Your task to perform on an android device: Show me popular videos on Youtube Image 0: 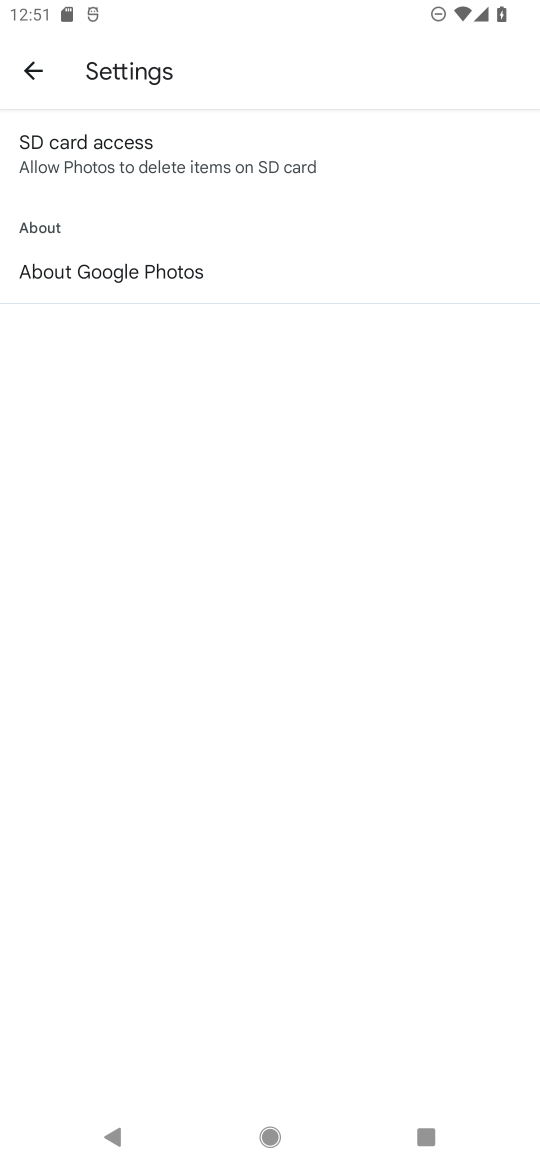
Step 0: press home button
Your task to perform on an android device: Show me popular videos on Youtube Image 1: 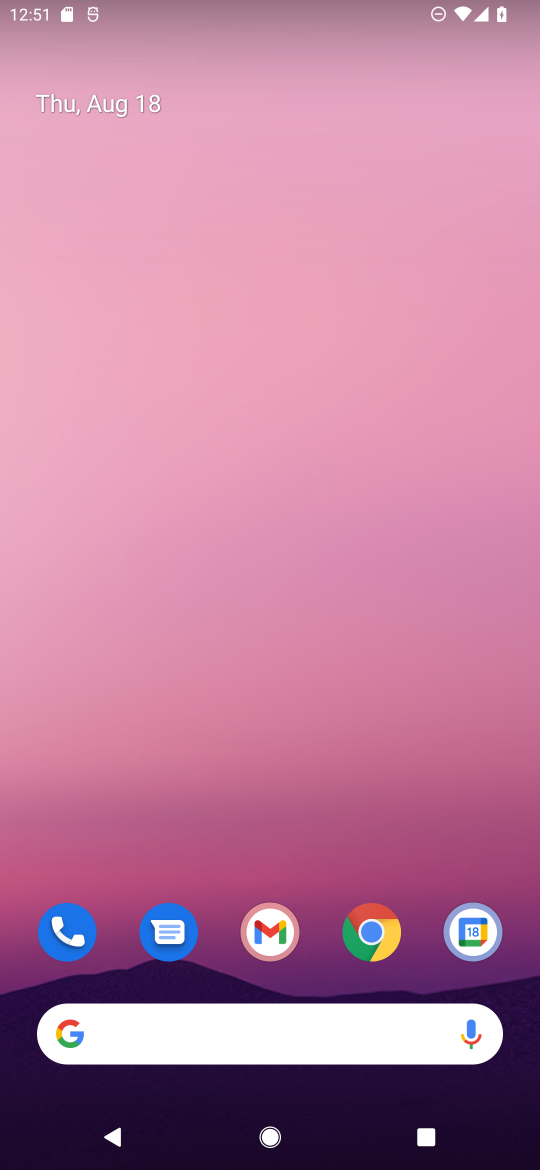
Step 1: drag from (319, 750) to (277, 71)
Your task to perform on an android device: Show me popular videos on Youtube Image 2: 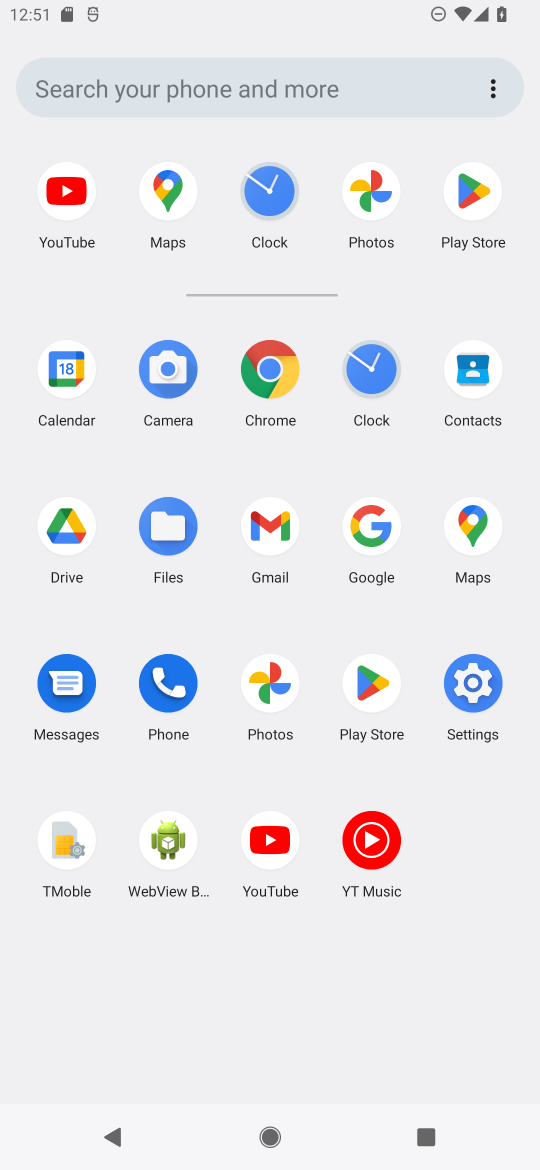
Step 2: click (72, 197)
Your task to perform on an android device: Show me popular videos on Youtube Image 3: 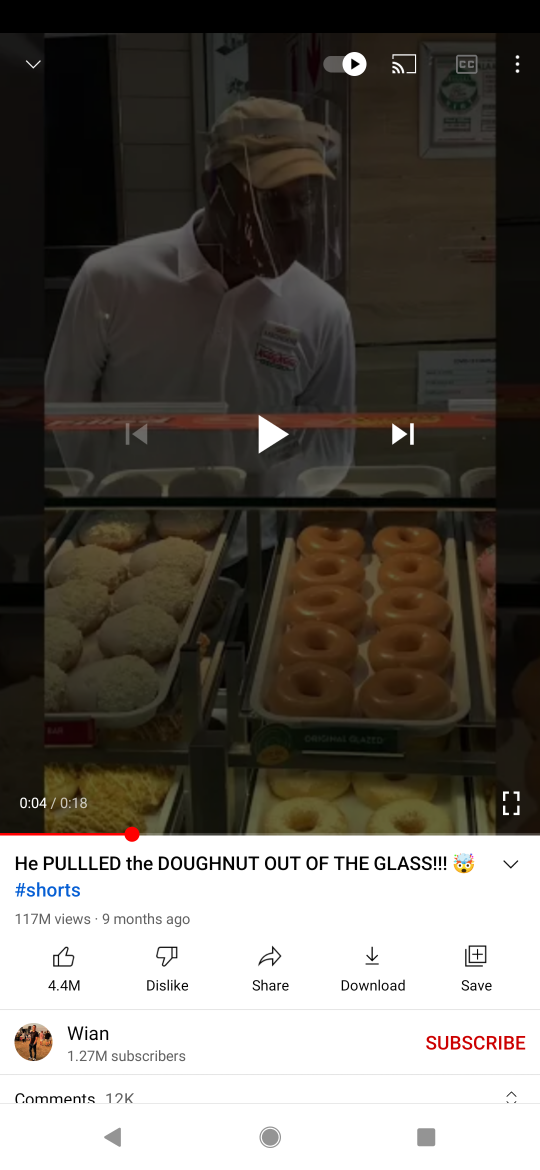
Step 3: click (39, 61)
Your task to perform on an android device: Show me popular videos on Youtube Image 4: 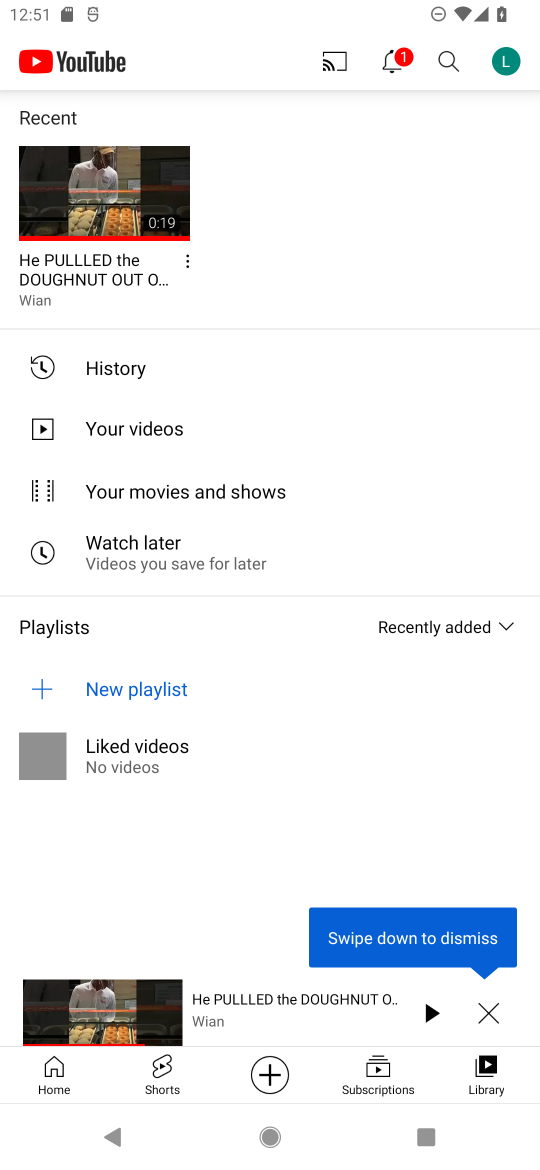
Step 4: click (489, 1016)
Your task to perform on an android device: Show me popular videos on Youtube Image 5: 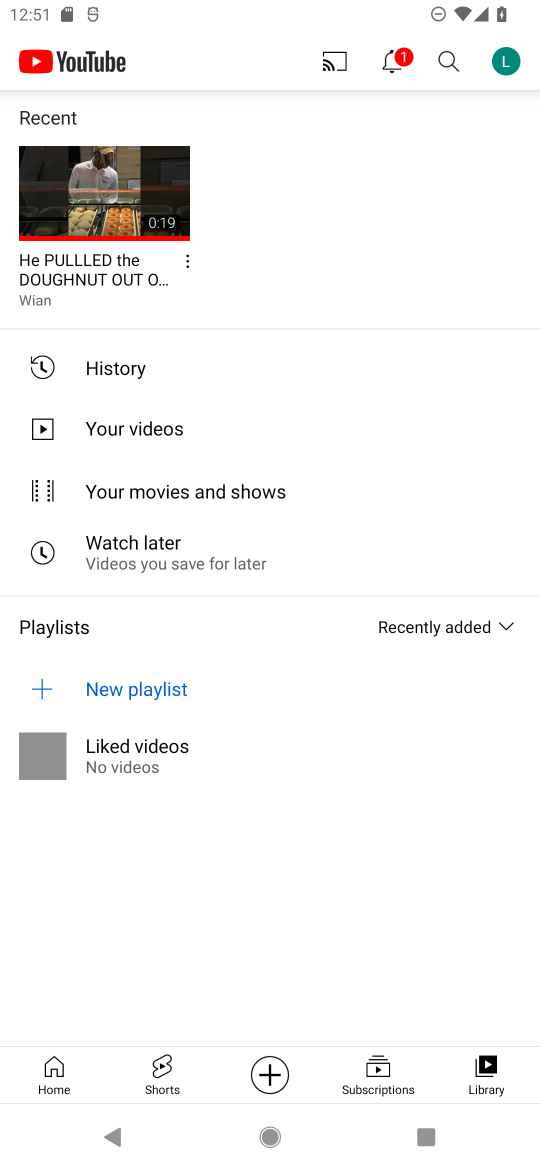
Step 5: click (159, 1077)
Your task to perform on an android device: Show me popular videos on Youtube Image 6: 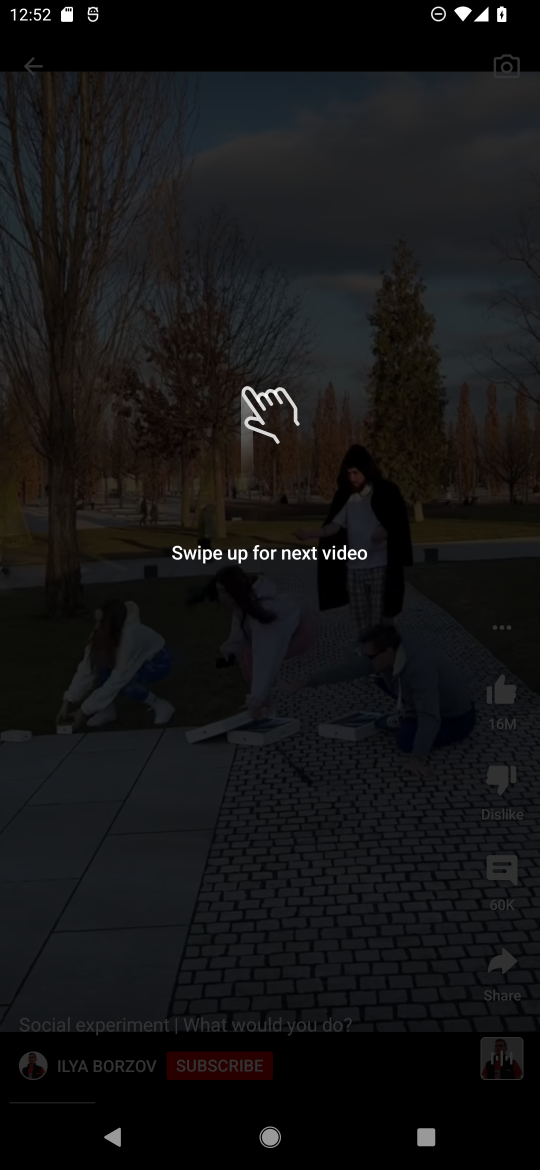
Step 6: click (352, 507)
Your task to perform on an android device: Show me popular videos on Youtube Image 7: 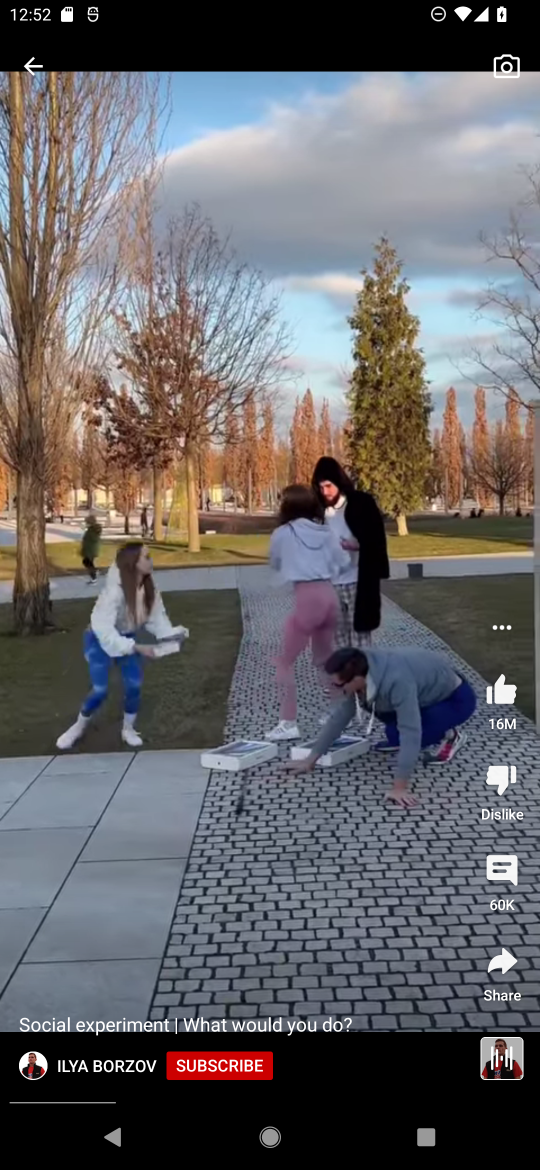
Step 7: click (285, 105)
Your task to perform on an android device: Show me popular videos on Youtube Image 8: 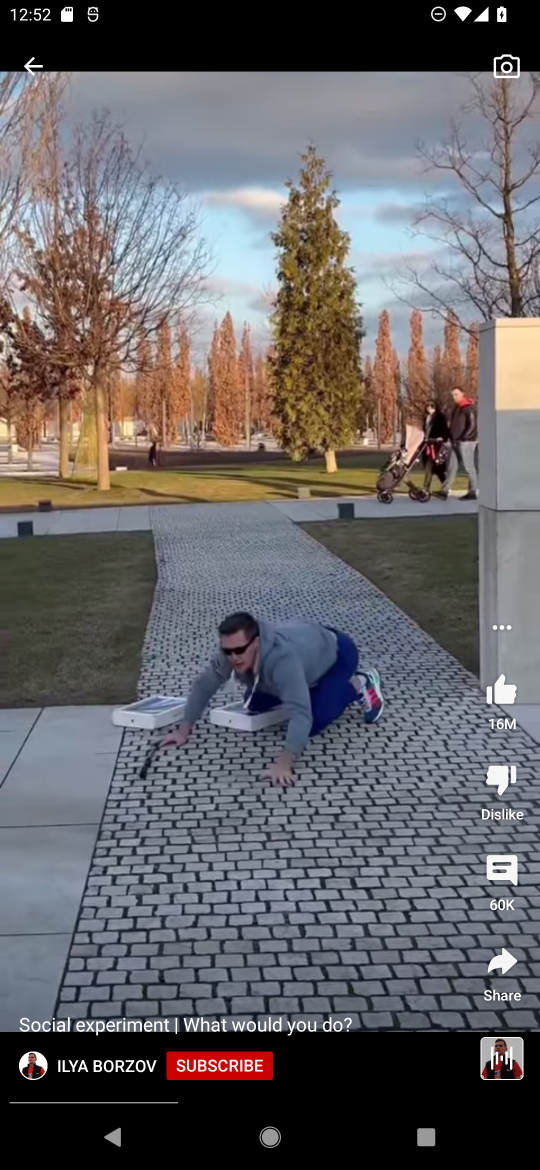
Step 8: task complete